Your task to perform on an android device: Play the last video I watched on Youtube Image 0: 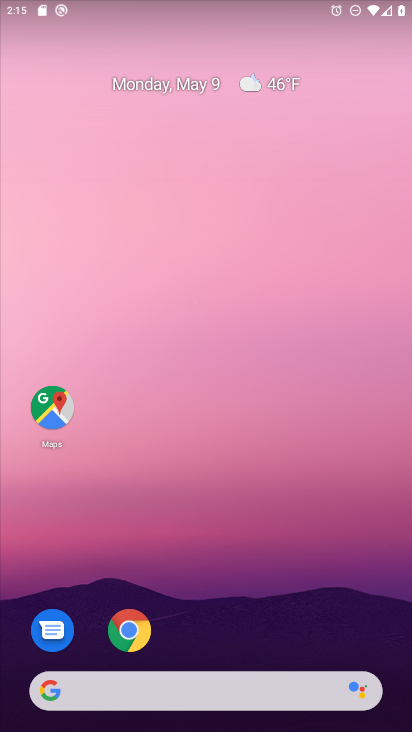
Step 0: drag from (266, 708) to (240, 394)
Your task to perform on an android device: Play the last video I watched on Youtube Image 1: 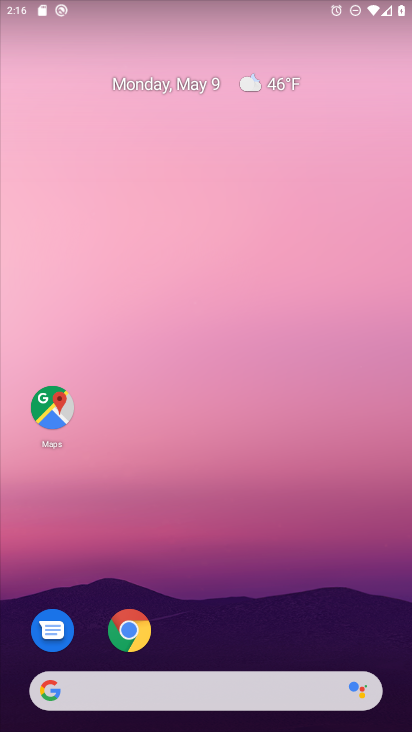
Step 1: drag from (252, 723) to (167, 335)
Your task to perform on an android device: Play the last video I watched on Youtube Image 2: 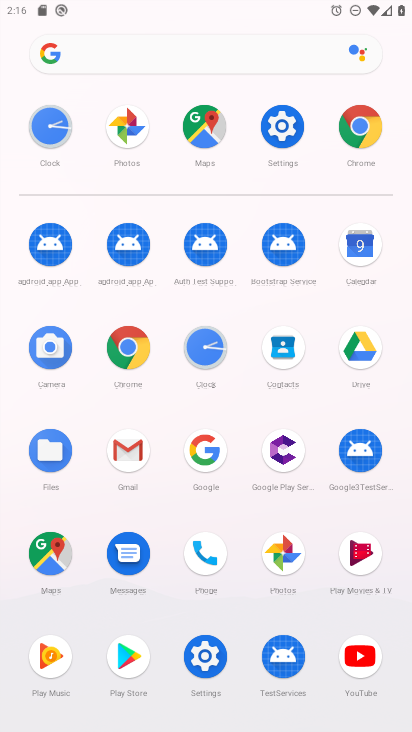
Step 2: click (370, 655)
Your task to perform on an android device: Play the last video I watched on Youtube Image 3: 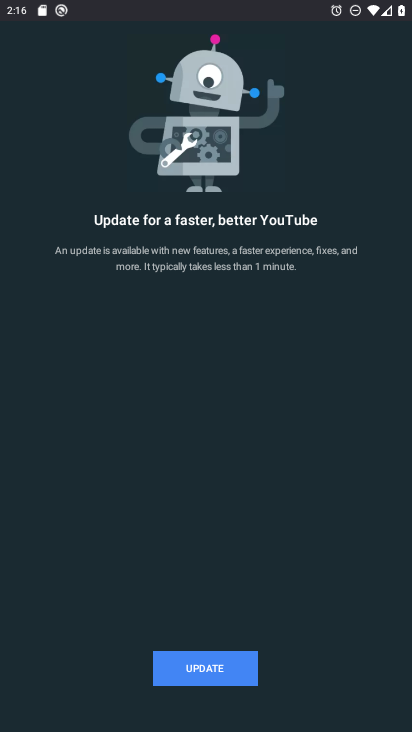
Step 3: click (204, 681)
Your task to perform on an android device: Play the last video I watched on Youtube Image 4: 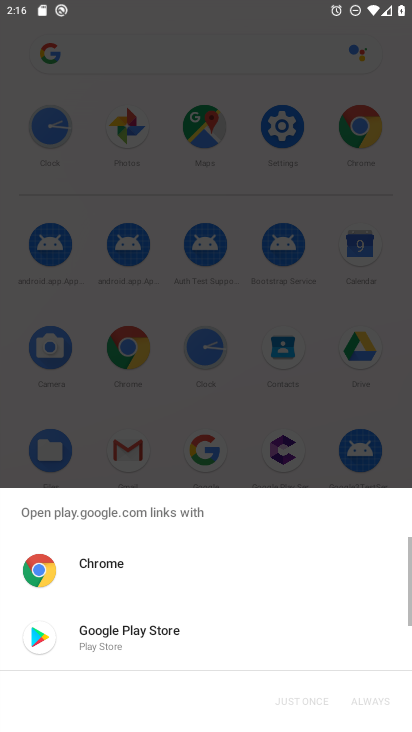
Step 4: click (141, 637)
Your task to perform on an android device: Play the last video I watched on Youtube Image 5: 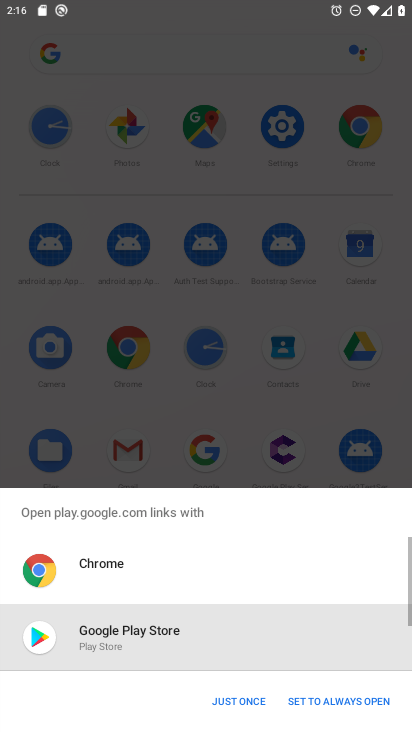
Step 5: click (233, 702)
Your task to perform on an android device: Play the last video I watched on Youtube Image 6: 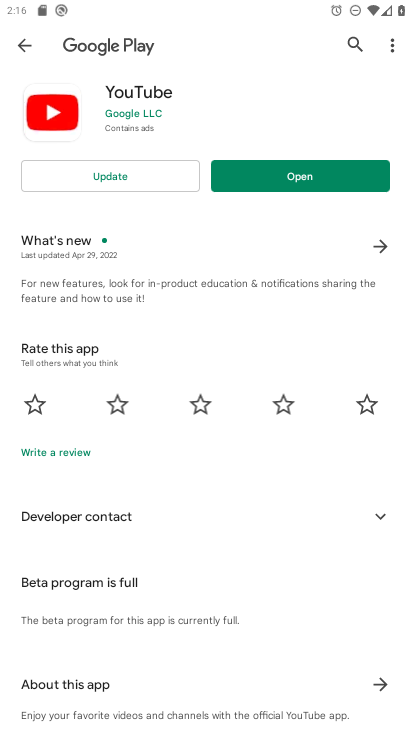
Step 6: click (147, 177)
Your task to perform on an android device: Play the last video I watched on Youtube Image 7: 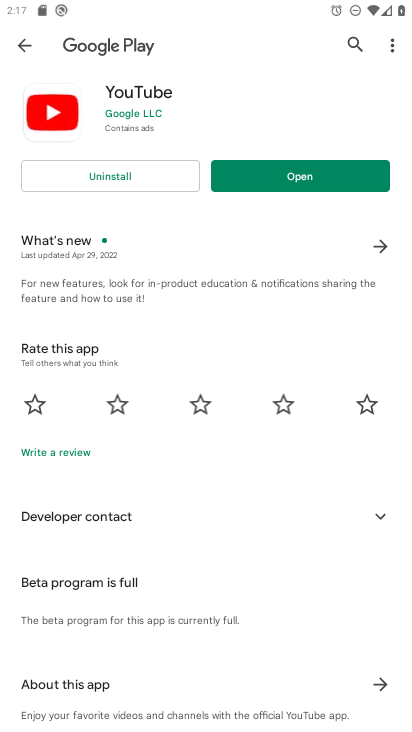
Step 7: click (288, 168)
Your task to perform on an android device: Play the last video I watched on Youtube Image 8: 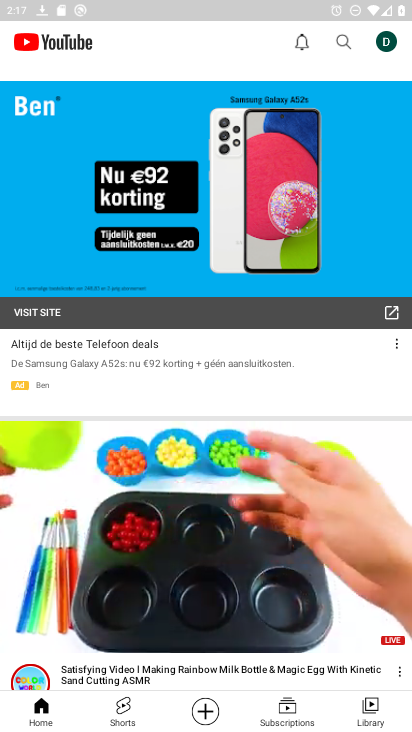
Step 8: click (366, 707)
Your task to perform on an android device: Play the last video I watched on Youtube Image 9: 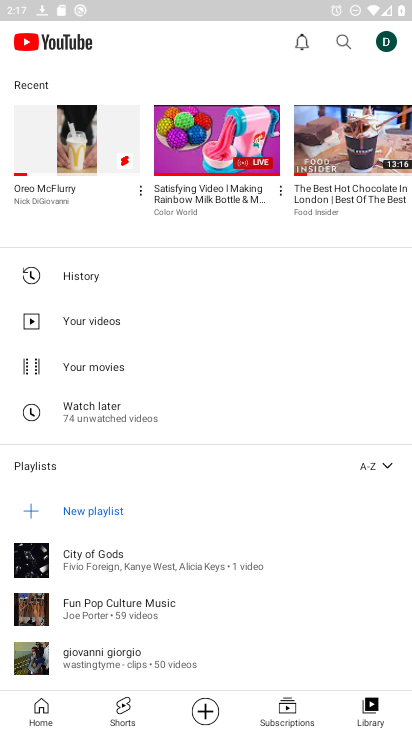
Step 9: click (77, 150)
Your task to perform on an android device: Play the last video I watched on Youtube Image 10: 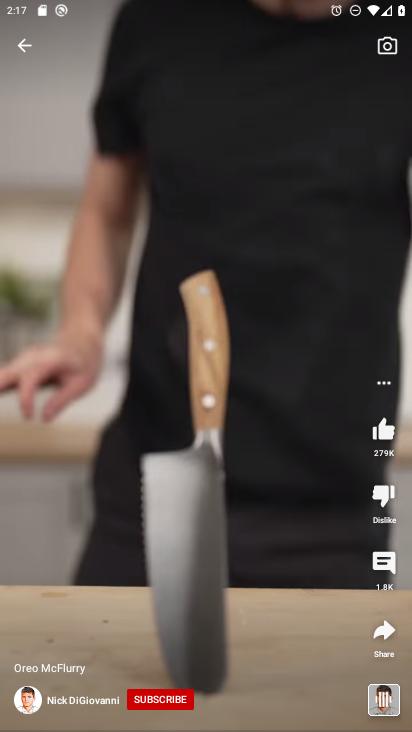
Step 10: task complete